Your task to perform on an android device: Open the web browser Image 0: 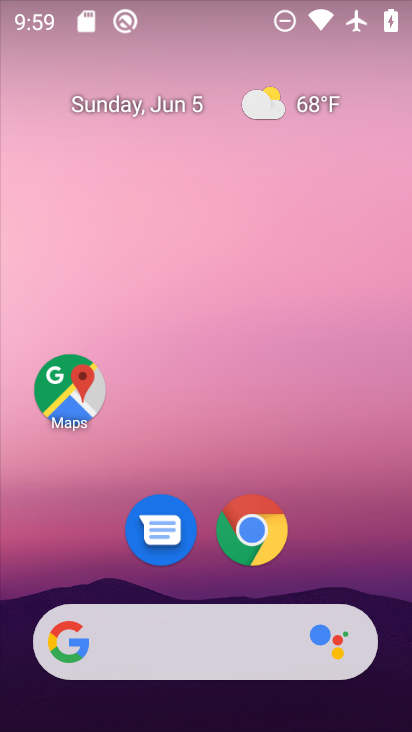
Step 0: click (258, 526)
Your task to perform on an android device: Open the web browser Image 1: 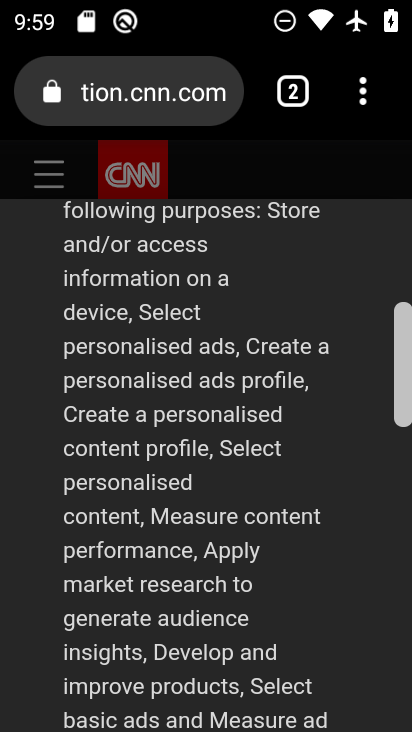
Step 1: task complete